Your task to perform on an android device: Search for Mexican restaurants on Maps Image 0: 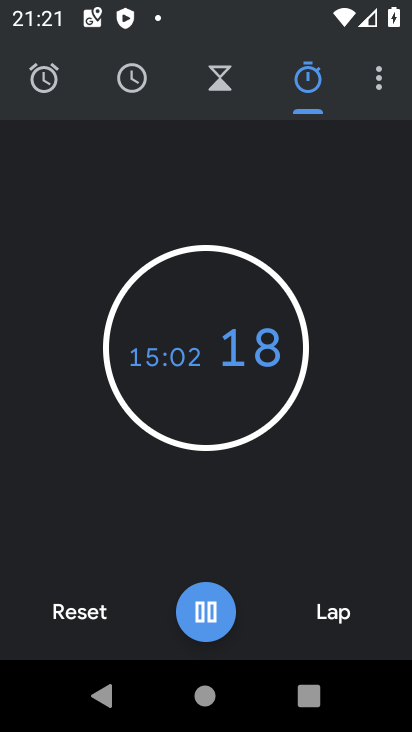
Step 0: press home button
Your task to perform on an android device: Search for Mexican restaurants on Maps Image 1: 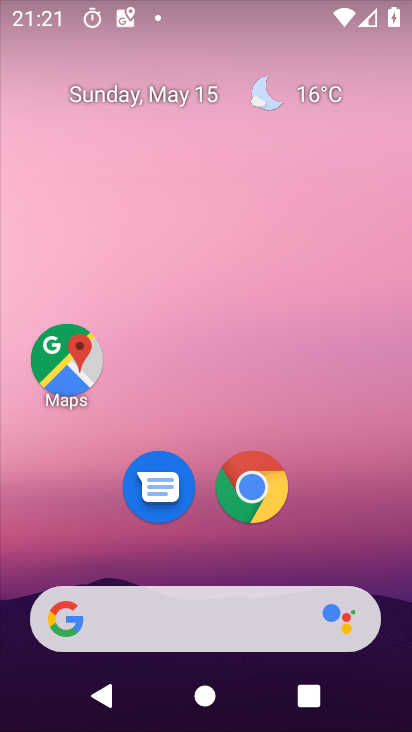
Step 1: click (61, 356)
Your task to perform on an android device: Search for Mexican restaurants on Maps Image 2: 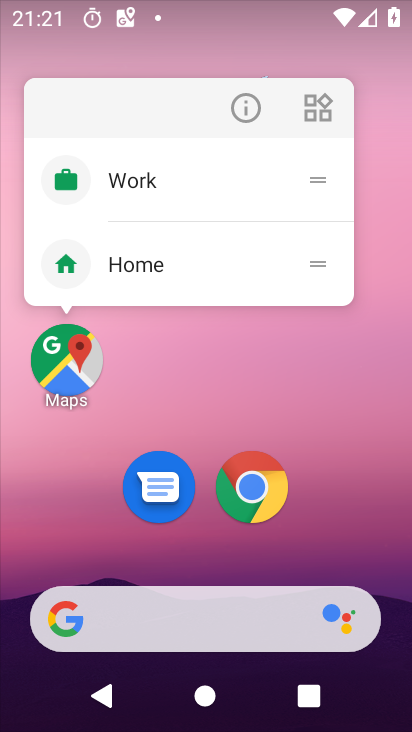
Step 2: click (37, 355)
Your task to perform on an android device: Search for Mexican restaurants on Maps Image 3: 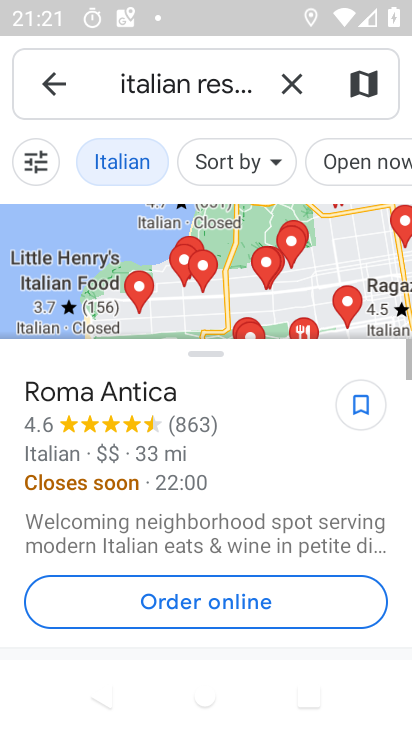
Step 3: click (285, 81)
Your task to perform on an android device: Search for Mexican restaurants on Maps Image 4: 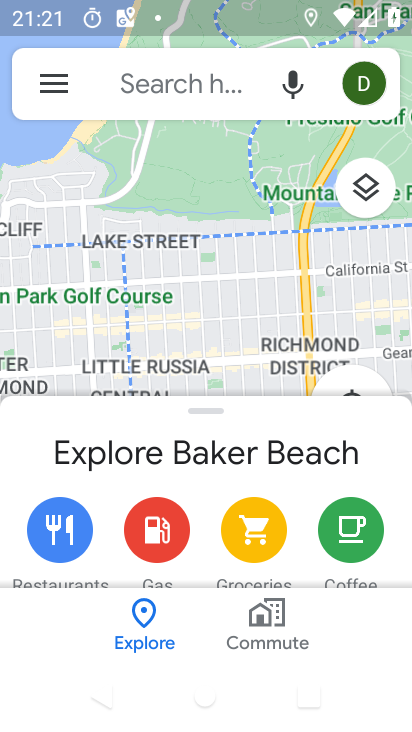
Step 4: click (135, 86)
Your task to perform on an android device: Search for Mexican restaurants on Maps Image 5: 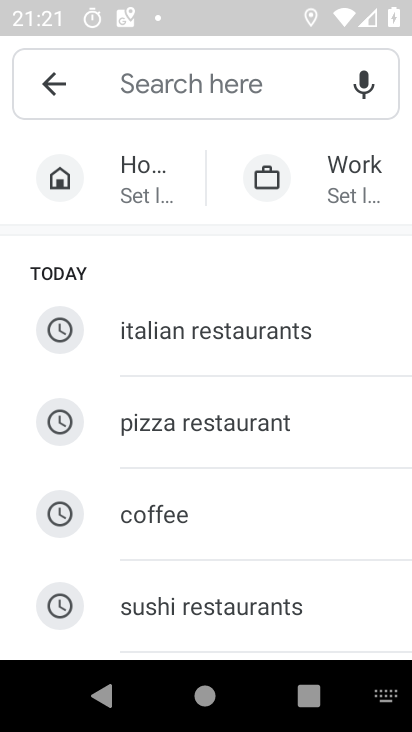
Step 5: click (143, 90)
Your task to perform on an android device: Search for Mexican restaurants on Maps Image 6: 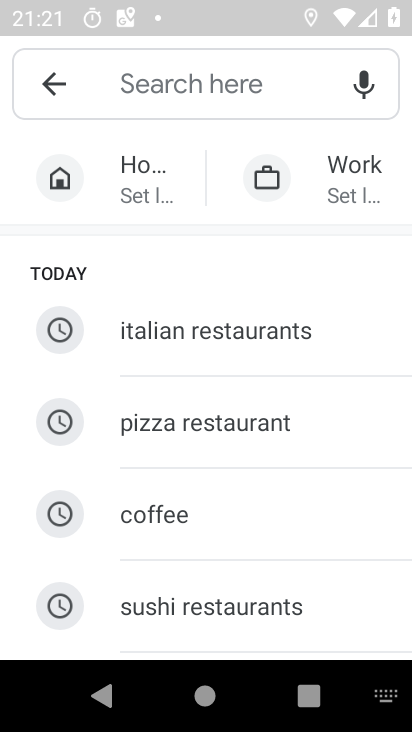
Step 6: type "Mexican restaurants"
Your task to perform on an android device: Search for Mexican restaurants on Maps Image 7: 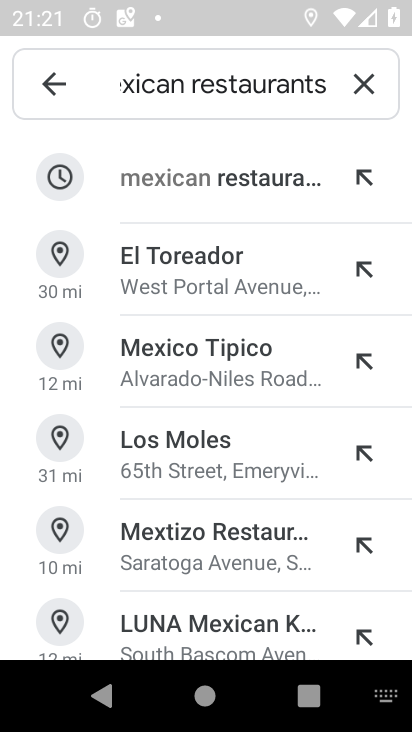
Step 7: click (215, 177)
Your task to perform on an android device: Search for Mexican restaurants on Maps Image 8: 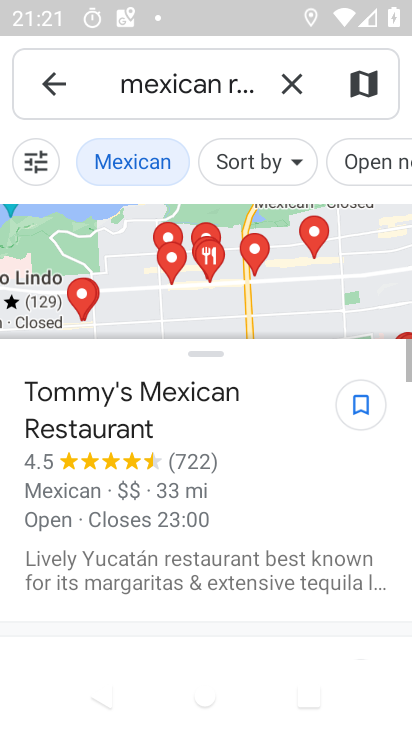
Step 8: task complete